Your task to perform on an android device: check out phone information Image 0: 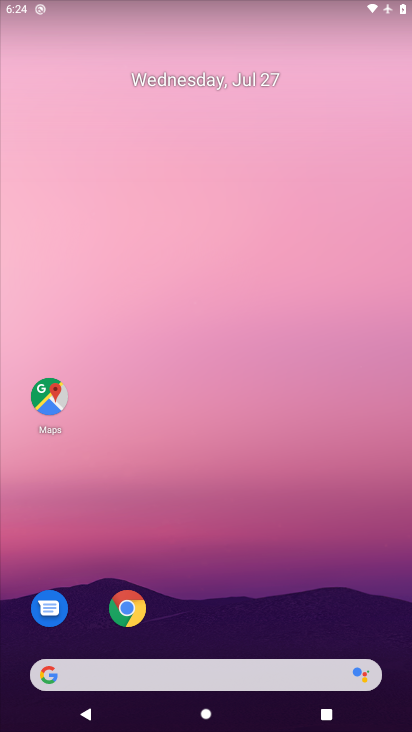
Step 0: press home button
Your task to perform on an android device: check out phone information Image 1: 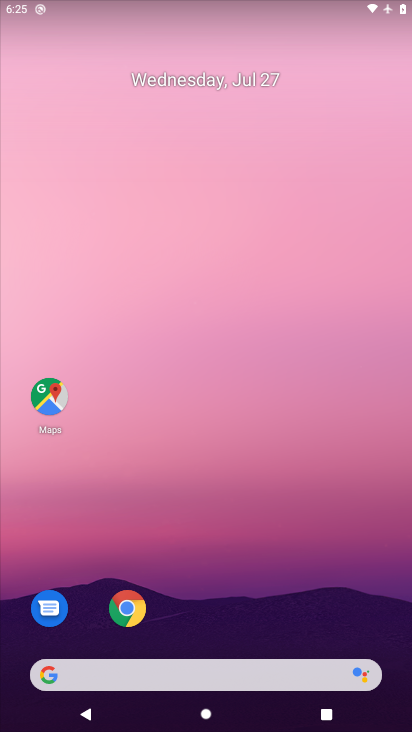
Step 1: drag from (307, 626) to (210, 201)
Your task to perform on an android device: check out phone information Image 2: 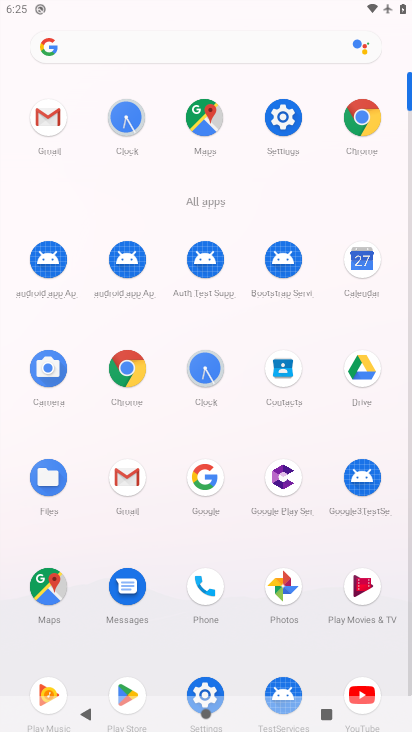
Step 2: click (274, 136)
Your task to perform on an android device: check out phone information Image 3: 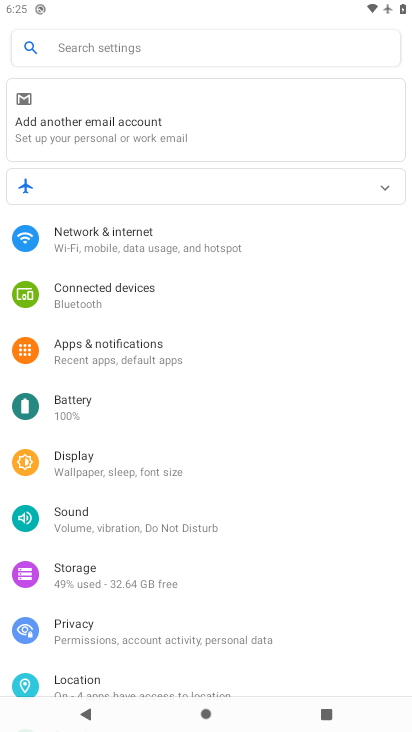
Step 3: drag from (298, 663) to (253, 14)
Your task to perform on an android device: check out phone information Image 4: 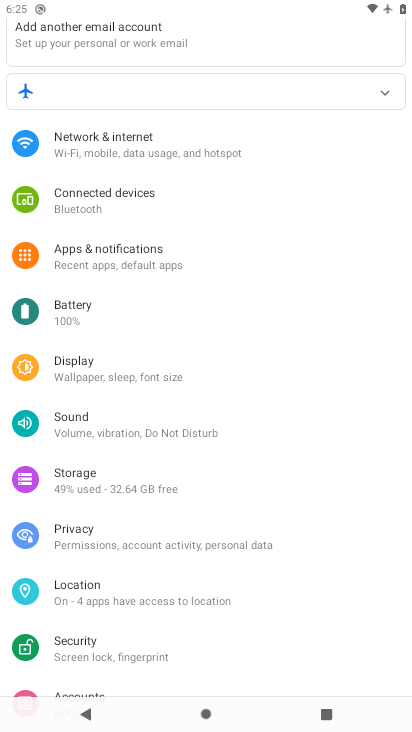
Step 4: drag from (353, 654) to (161, 80)
Your task to perform on an android device: check out phone information Image 5: 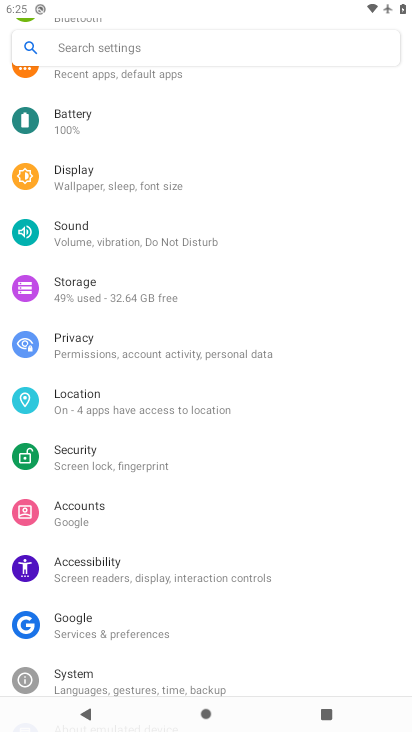
Step 5: drag from (242, 624) to (212, 175)
Your task to perform on an android device: check out phone information Image 6: 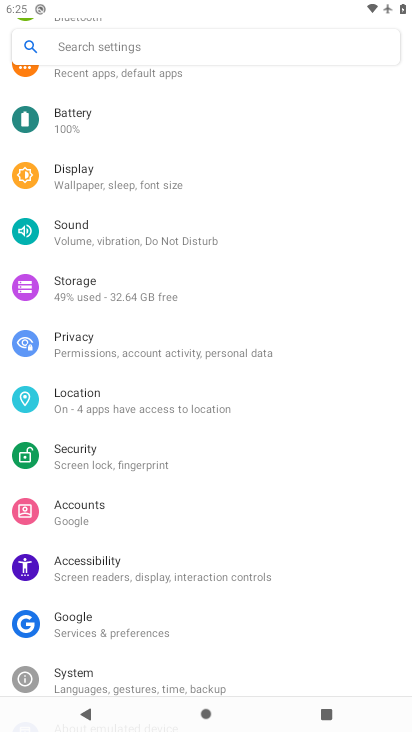
Step 6: drag from (286, 643) to (188, 47)
Your task to perform on an android device: check out phone information Image 7: 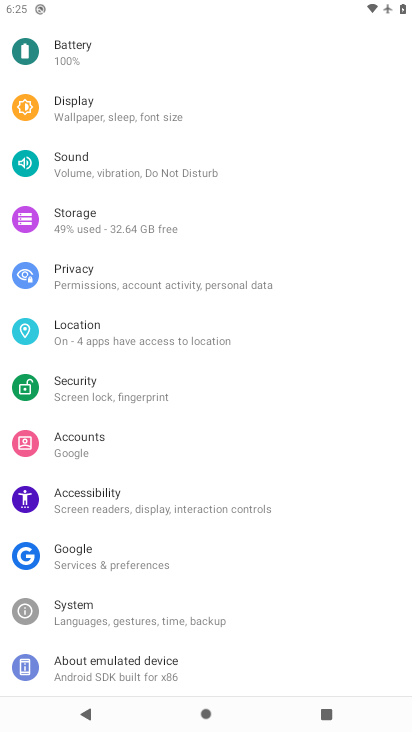
Step 7: click (104, 658)
Your task to perform on an android device: check out phone information Image 8: 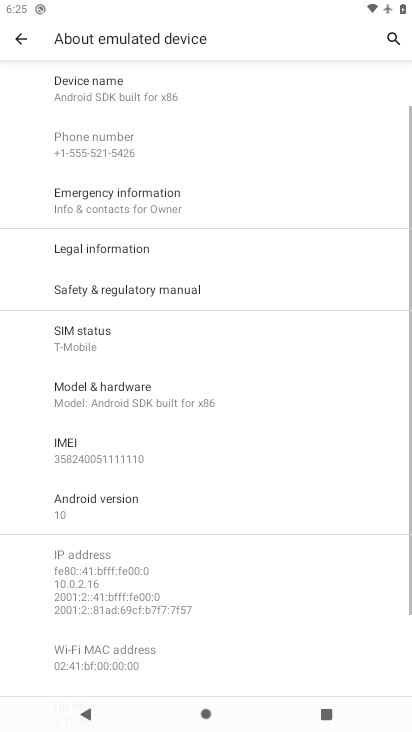
Step 8: task complete